Your task to perform on an android device: open sync settings in chrome Image 0: 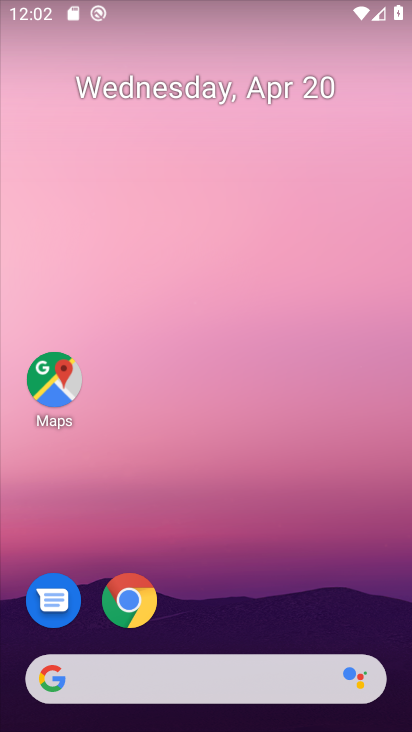
Step 0: drag from (328, 607) to (364, 67)
Your task to perform on an android device: open sync settings in chrome Image 1: 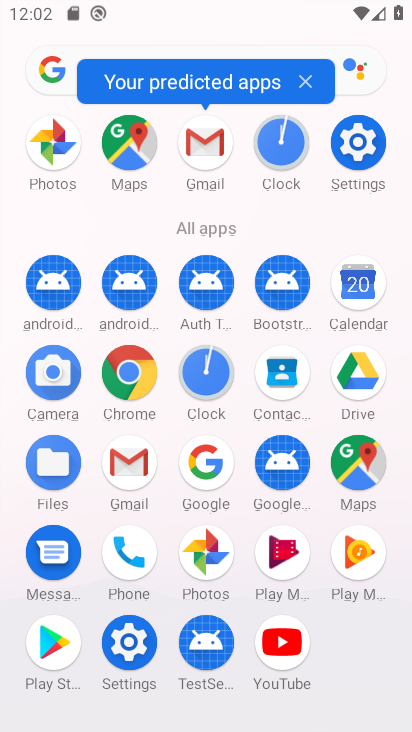
Step 1: click (145, 394)
Your task to perform on an android device: open sync settings in chrome Image 2: 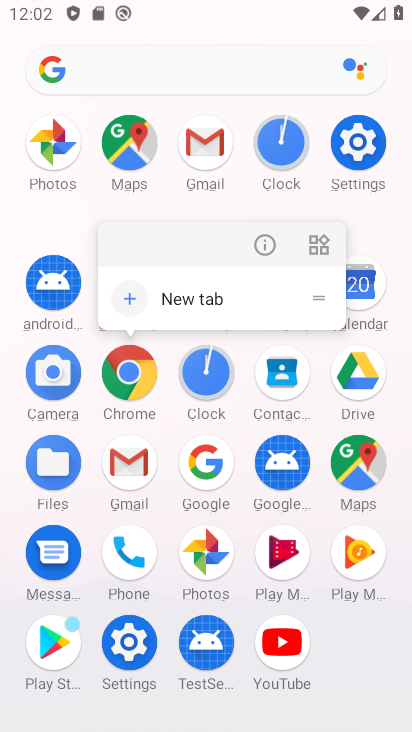
Step 2: click (144, 393)
Your task to perform on an android device: open sync settings in chrome Image 3: 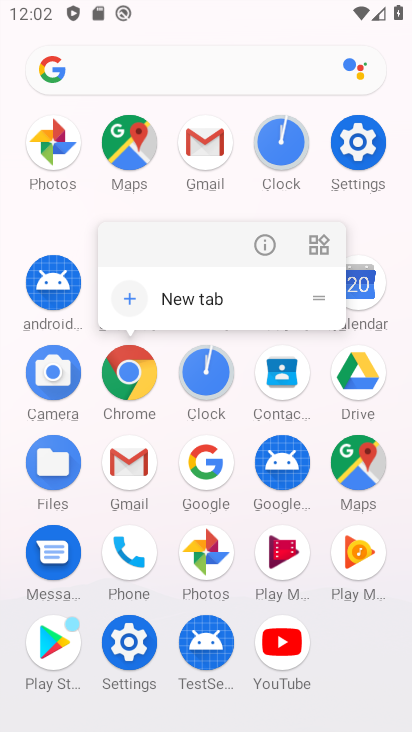
Step 3: click (139, 369)
Your task to perform on an android device: open sync settings in chrome Image 4: 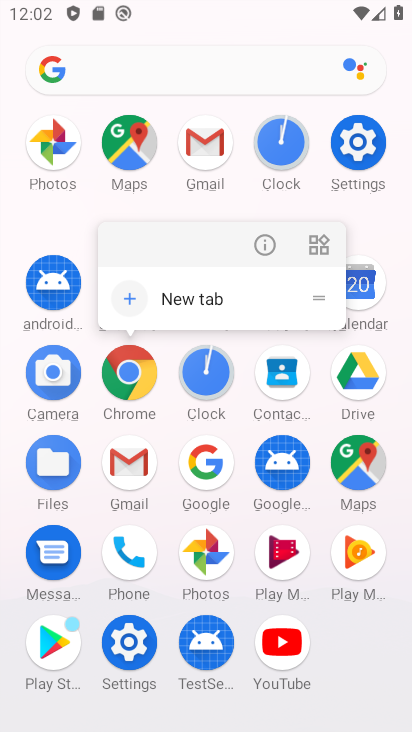
Step 4: click (139, 369)
Your task to perform on an android device: open sync settings in chrome Image 5: 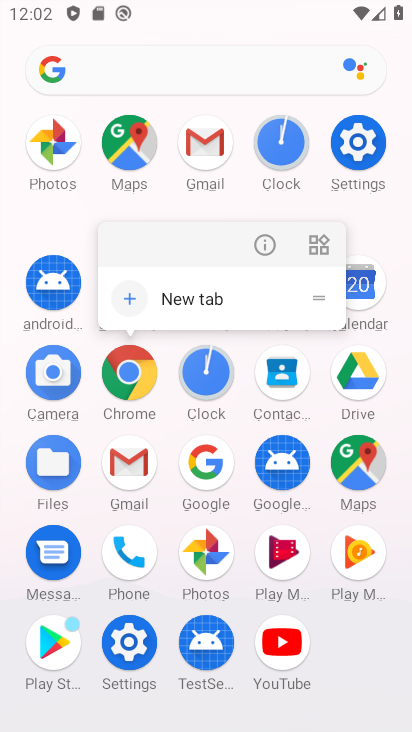
Step 5: click (132, 384)
Your task to perform on an android device: open sync settings in chrome Image 6: 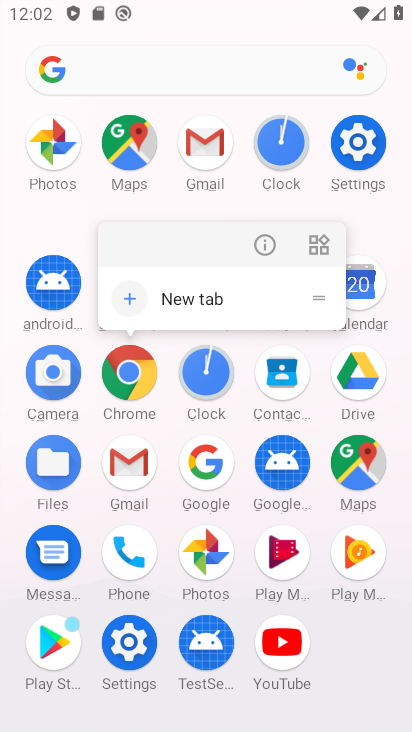
Step 6: click (141, 372)
Your task to perform on an android device: open sync settings in chrome Image 7: 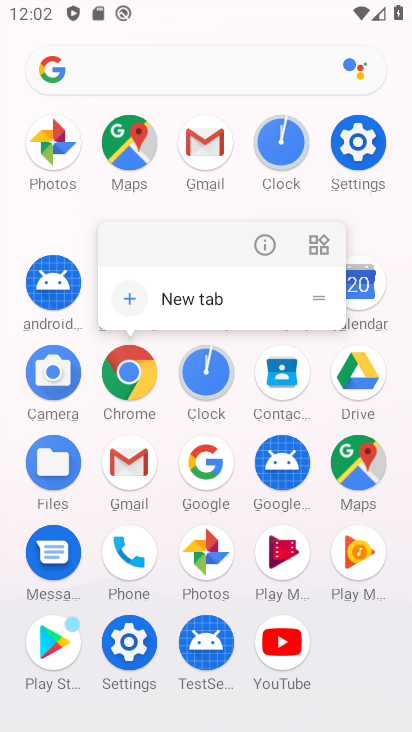
Step 7: drag from (341, 629) to (303, 428)
Your task to perform on an android device: open sync settings in chrome Image 8: 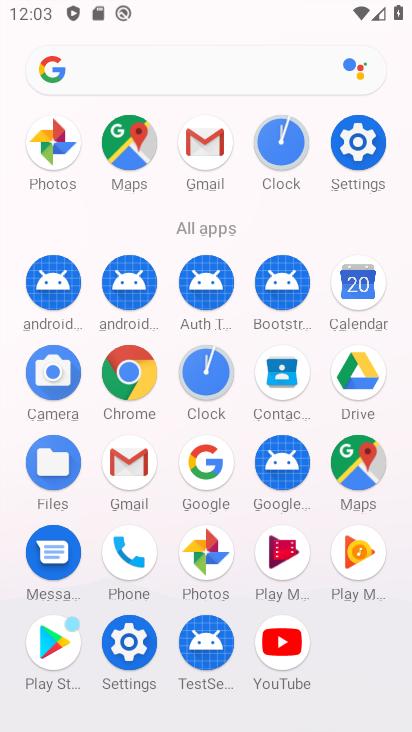
Step 8: click (136, 371)
Your task to perform on an android device: open sync settings in chrome Image 9: 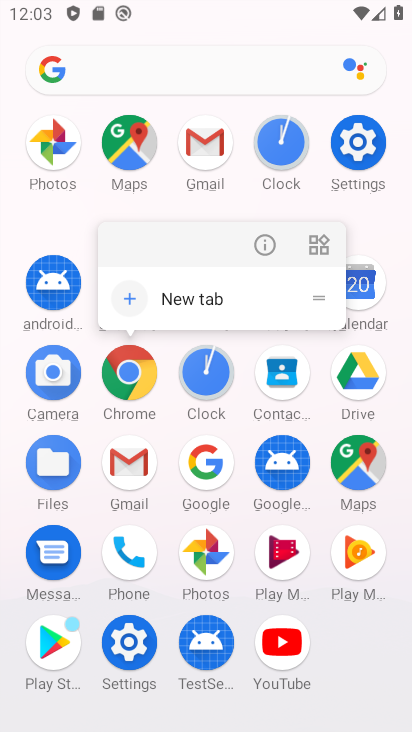
Step 9: click (130, 390)
Your task to perform on an android device: open sync settings in chrome Image 10: 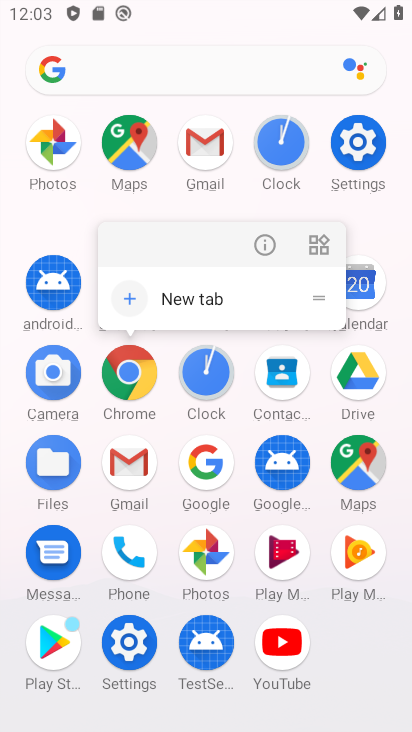
Step 10: click (130, 390)
Your task to perform on an android device: open sync settings in chrome Image 11: 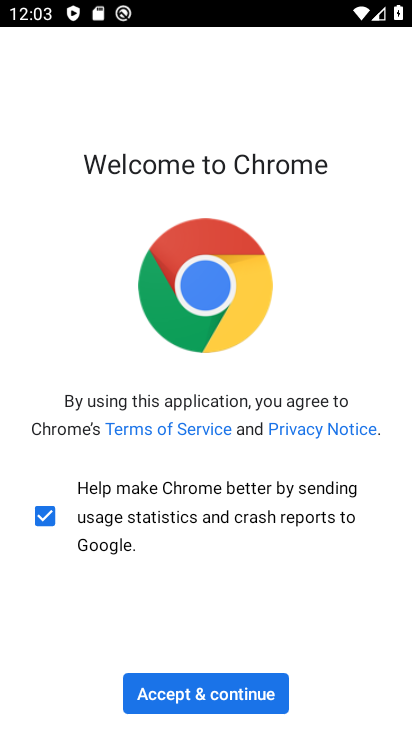
Step 11: click (191, 692)
Your task to perform on an android device: open sync settings in chrome Image 12: 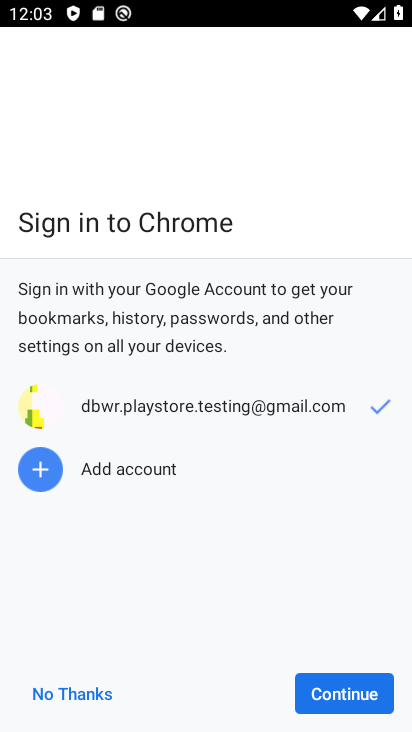
Step 12: click (330, 685)
Your task to perform on an android device: open sync settings in chrome Image 13: 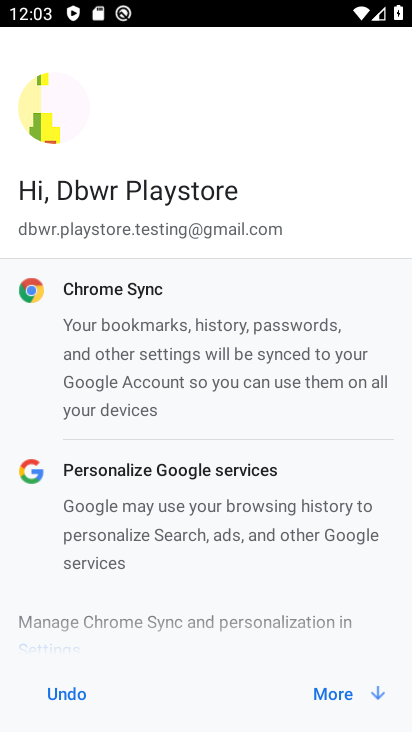
Step 13: click (331, 686)
Your task to perform on an android device: open sync settings in chrome Image 14: 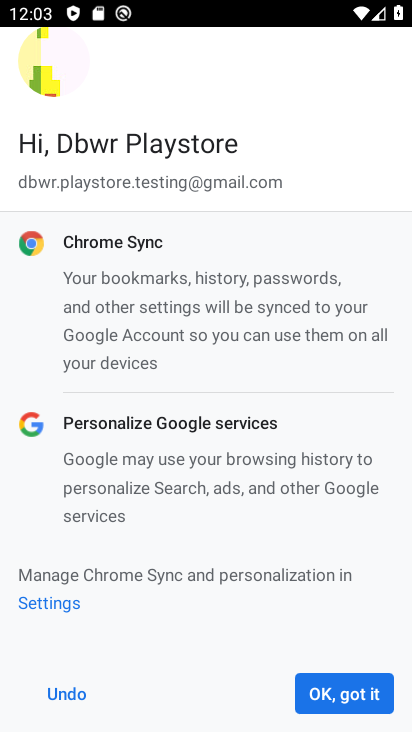
Step 14: click (332, 685)
Your task to perform on an android device: open sync settings in chrome Image 15: 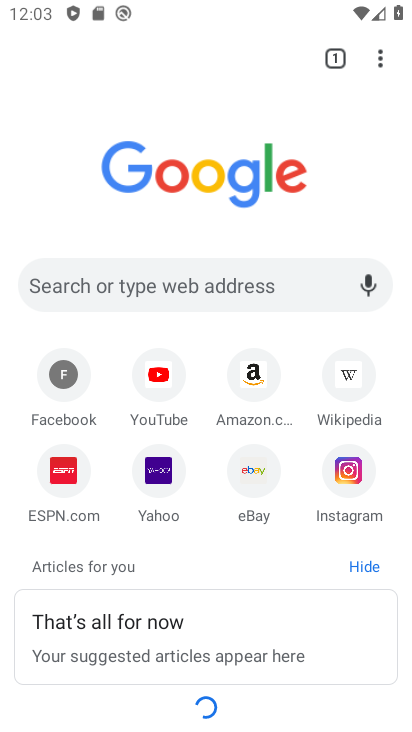
Step 15: drag from (379, 62) to (275, 480)
Your task to perform on an android device: open sync settings in chrome Image 16: 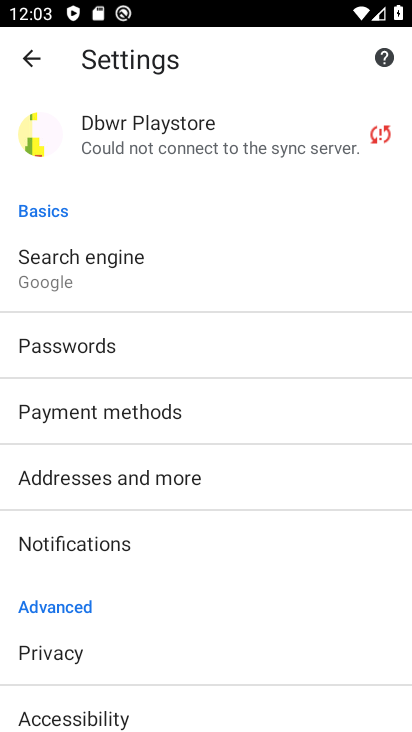
Step 16: drag from (269, 660) to (292, 370)
Your task to perform on an android device: open sync settings in chrome Image 17: 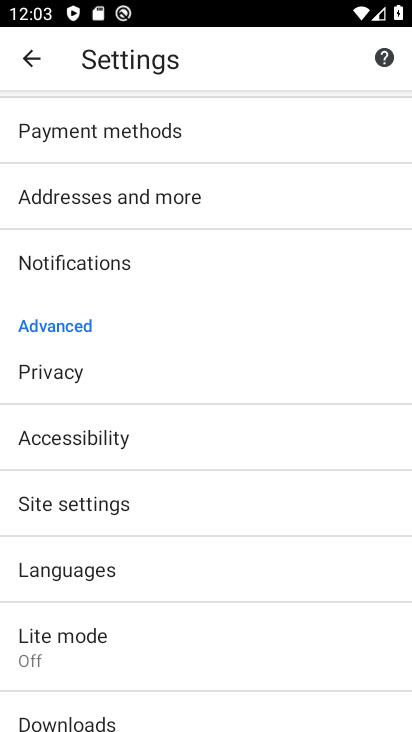
Step 17: drag from (285, 551) to (310, 415)
Your task to perform on an android device: open sync settings in chrome Image 18: 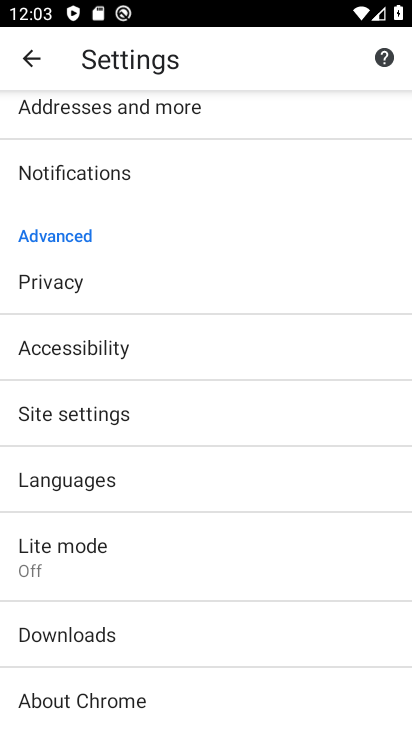
Step 18: click (104, 419)
Your task to perform on an android device: open sync settings in chrome Image 19: 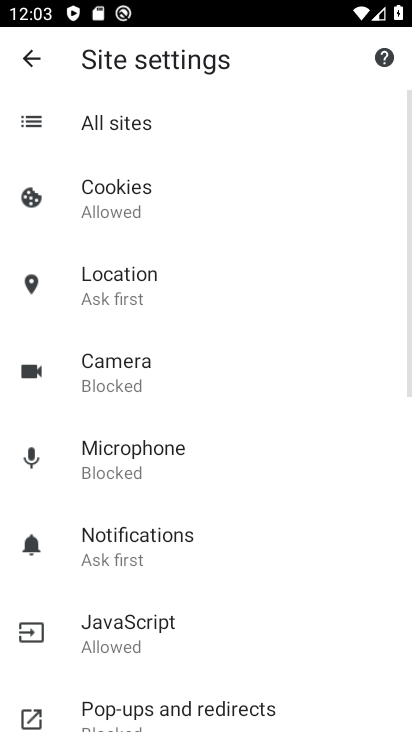
Step 19: drag from (236, 636) to (271, 343)
Your task to perform on an android device: open sync settings in chrome Image 20: 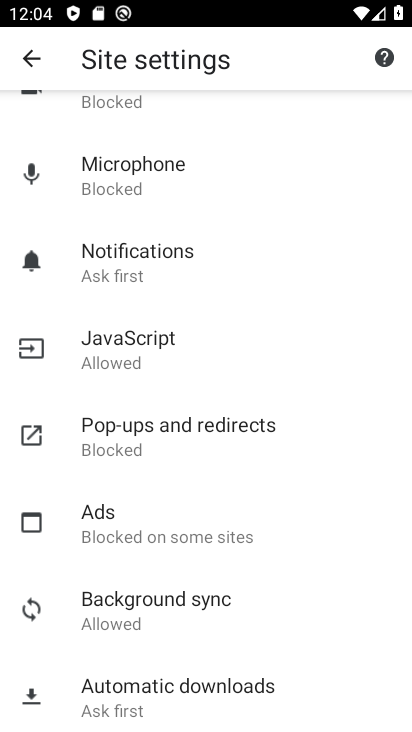
Step 20: click (200, 610)
Your task to perform on an android device: open sync settings in chrome Image 21: 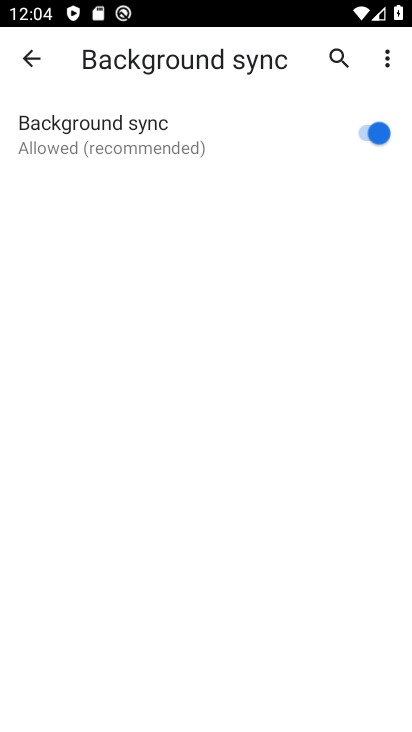
Step 21: task complete